Your task to perform on an android device: Search for seafood restaurants on Google Maps Image 0: 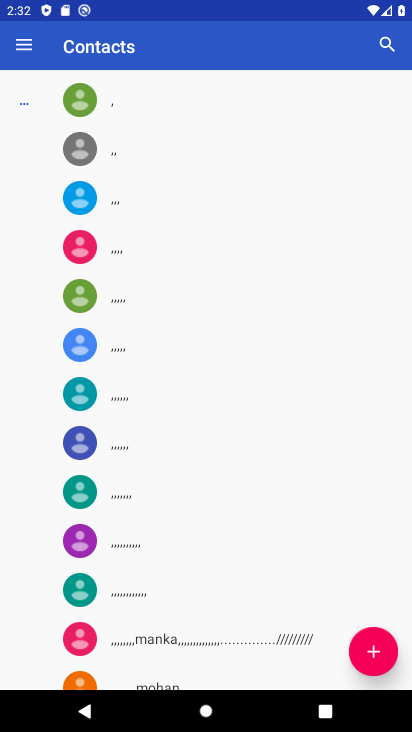
Step 0: press home button
Your task to perform on an android device: Search for seafood restaurants on Google Maps Image 1: 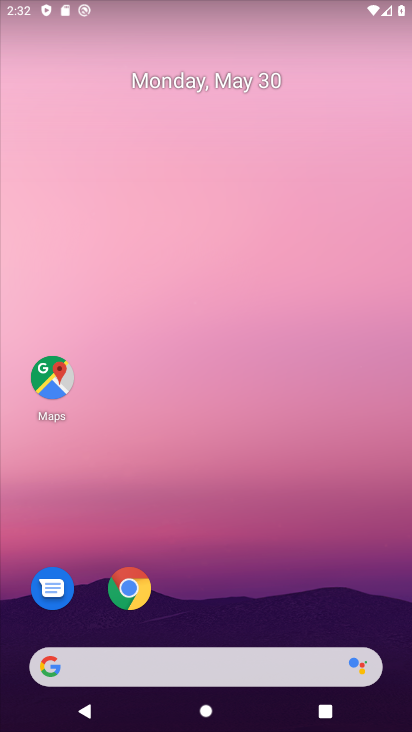
Step 1: click (47, 375)
Your task to perform on an android device: Search for seafood restaurants on Google Maps Image 2: 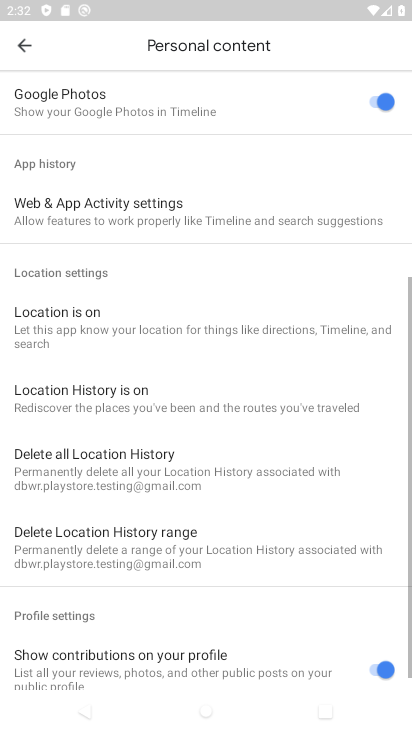
Step 2: click (41, 42)
Your task to perform on an android device: Search for seafood restaurants on Google Maps Image 3: 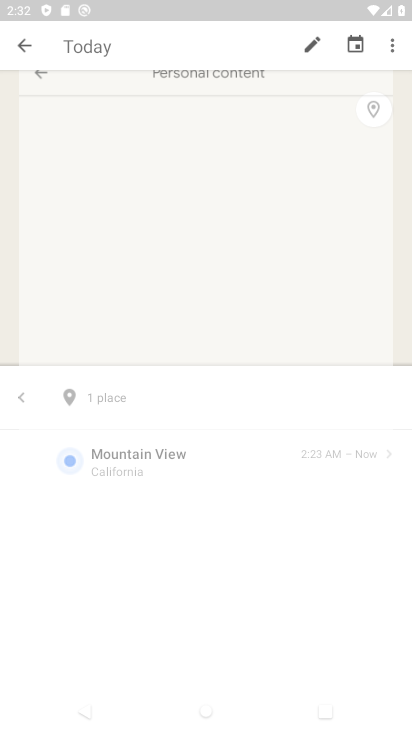
Step 3: click (40, 41)
Your task to perform on an android device: Search for seafood restaurants on Google Maps Image 4: 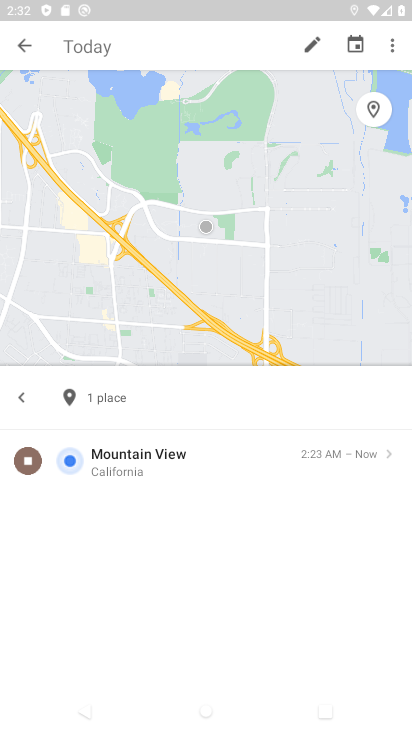
Step 4: click (34, 49)
Your task to perform on an android device: Search for seafood restaurants on Google Maps Image 5: 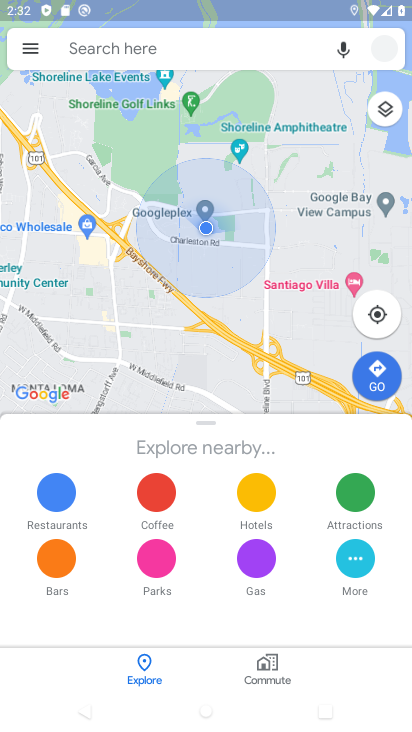
Step 5: click (132, 46)
Your task to perform on an android device: Search for seafood restaurants on Google Maps Image 6: 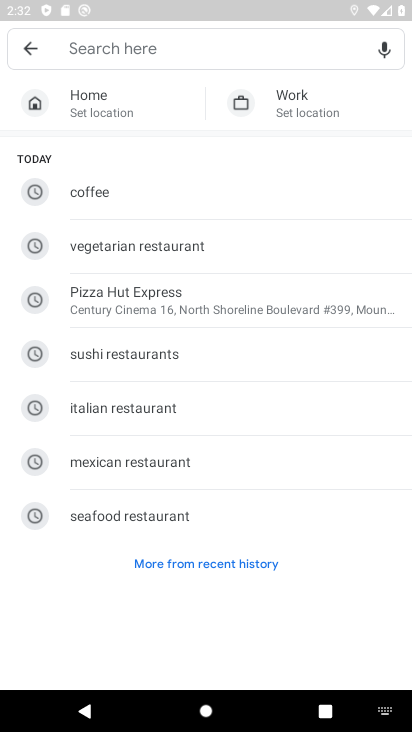
Step 6: click (143, 519)
Your task to perform on an android device: Search for seafood restaurants on Google Maps Image 7: 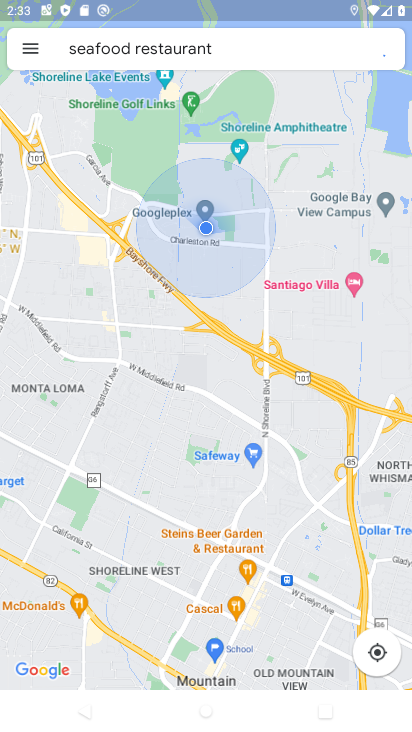
Step 7: task complete